Your task to perform on an android device: Open CNN.com Image 0: 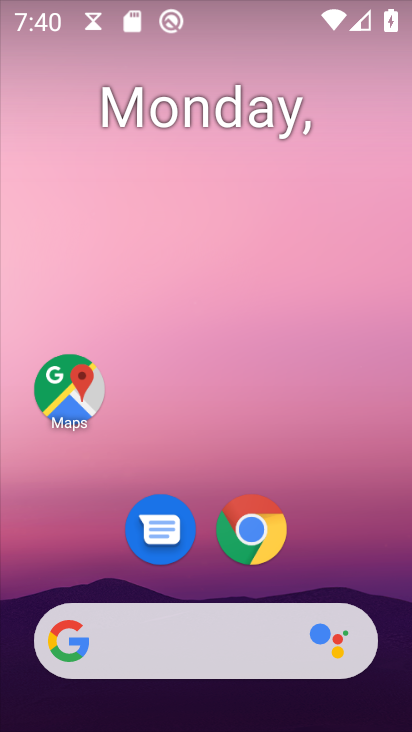
Step 0: drag from (178, 612) to (178, 224)
Your task to perform on an android device: Open CNN.com Image 1: 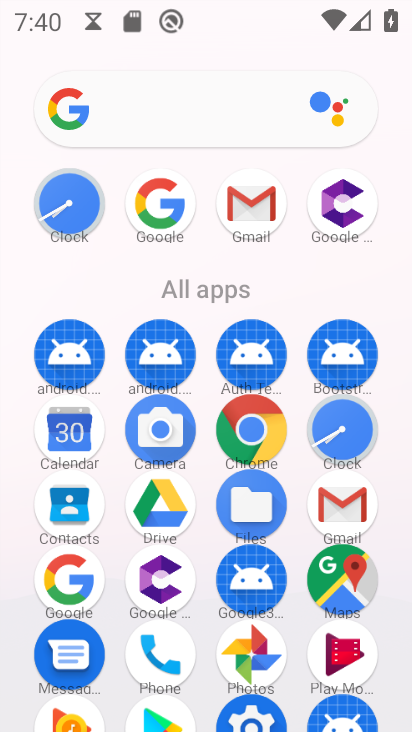
Step 1: click (161, 208)
Your task to perform on an android device: Open CNN.com Image 2: 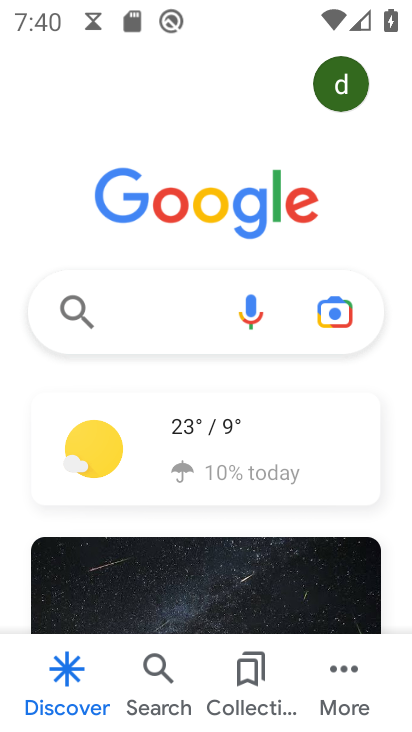
Step 2: drag from (164, 331) to (78, 331)
Your task to perform on an android device: Open CNN.com Image 3: 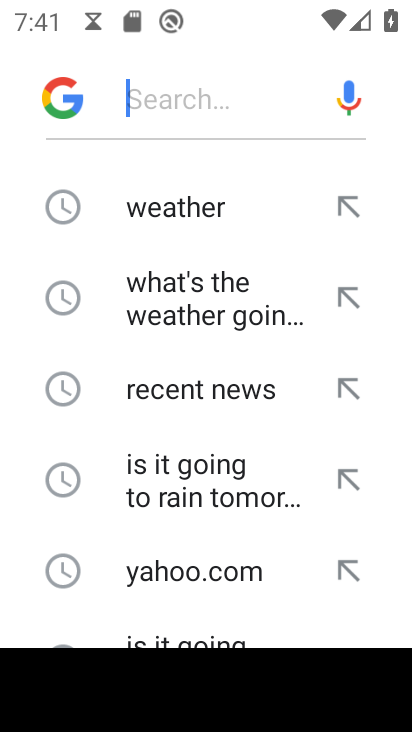
Step 3: drag from (94, 581) to (138, 116)
Your task to perform on an android device: Open CNN.com Image 4: 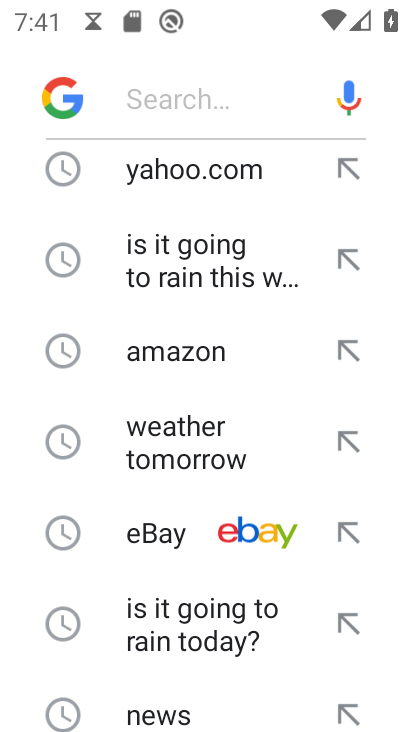
Step 4: drag from (138, 698) to (138, 191)
Your task to perform on an android device: Open CNN.com Image 5: 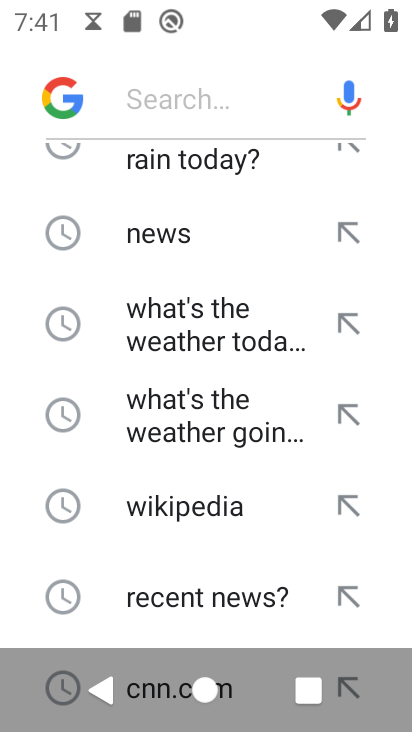
Step 5: drag from (163, 647) to (190, 279)
Your task to perform on an android device: Open CNN.com Image 6: 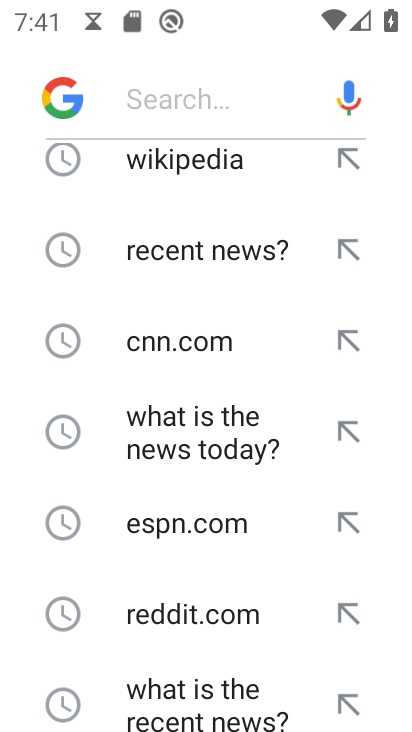
Step 6: click (170, 357)
Your task to perform on an android device: Open CNN.com Image 7: 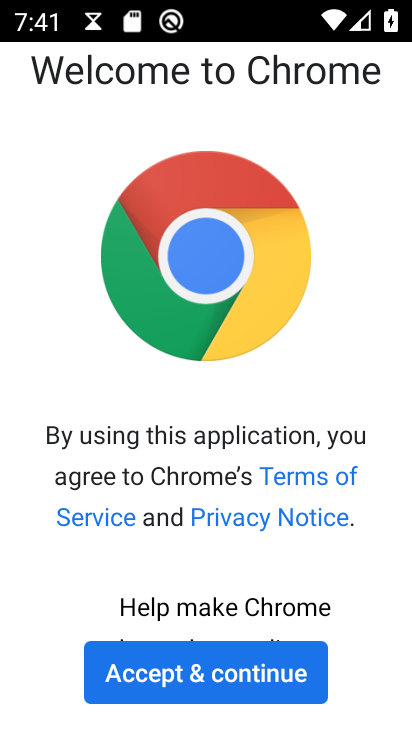
Step 7: click (220, 668)
Your task to perform on an android device: Open CNN.com Image 8: 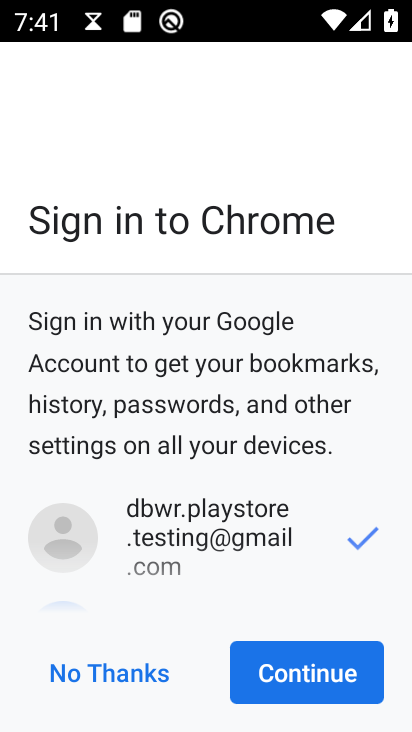
Step 8: click (316, 660)
Your task to perform on an android device: Open CNN.com Image 9: 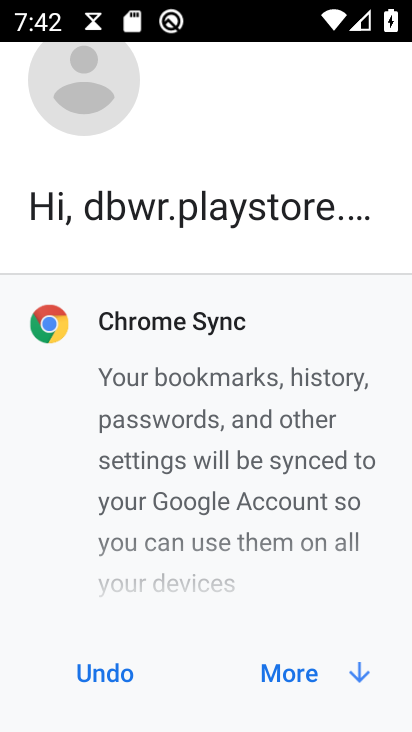
Step 9: click (310, 677)
Your task to perform on an android device: Open CNN.com Image 10: 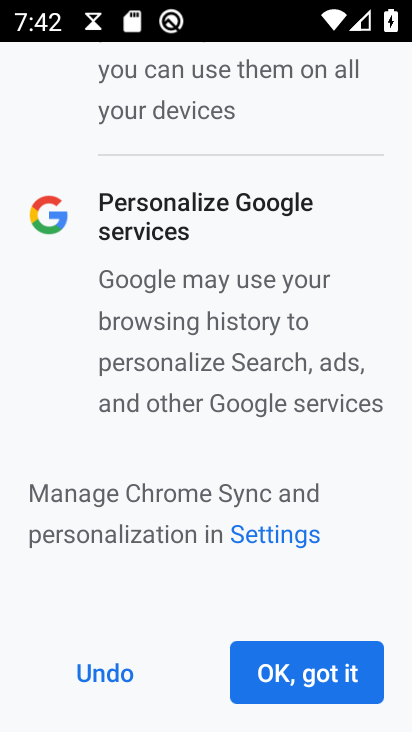
Step 10: click (310, 677)
Your task to perform on an android device: Open CNN.com Image 11: 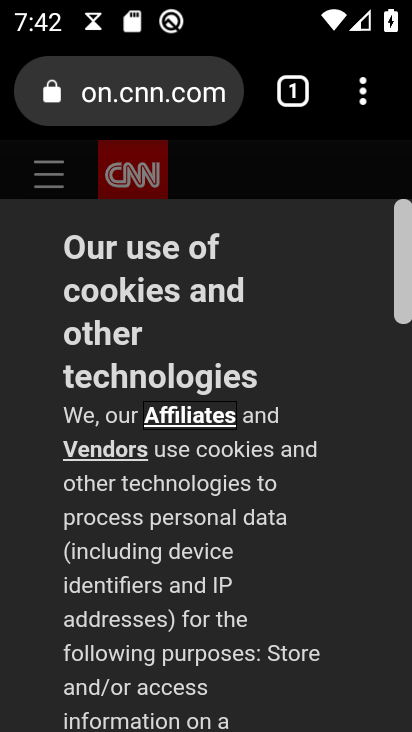
Step 11: task complete